Your task to perform on an android device: uninstall "eBay: The shopping marketplace" Image 0: 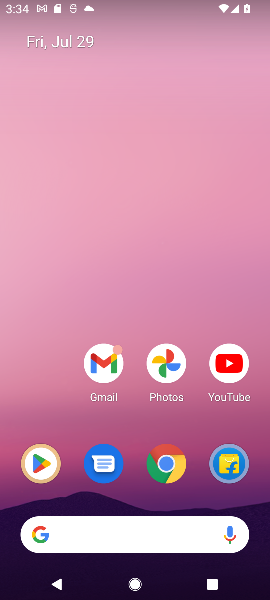
Step 0: drag from (93, 540) to (125, 202)
Your task to perform on an android device: uninstall "eBay: The shopping marketplace" Image 1: 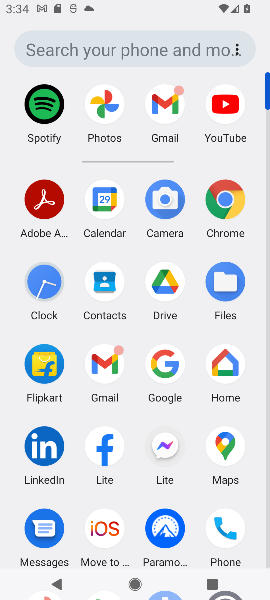
Step 1: drag from (133, 490) to (140, 348)
Your task to perform on an android device: uninstall "eBay: The shopping marketplace" Image 2: 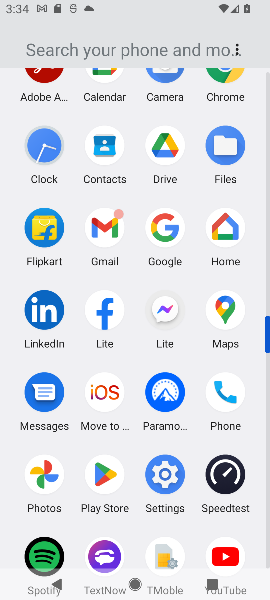
Step 2: click (110, 477)
Your task to perform on an android device: uninstall "eBay: The shopping marketplace" Image 3: 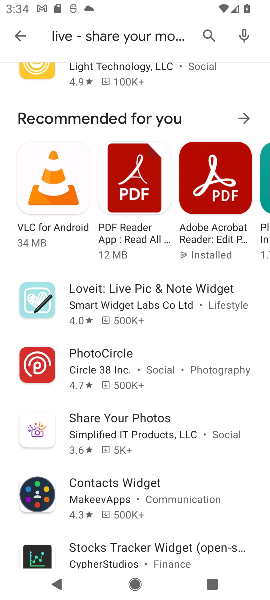
Step 3: click (208, 35)
Your task to perform on an android device: uninstall "eBay: The shopping marketplace" Image 4: 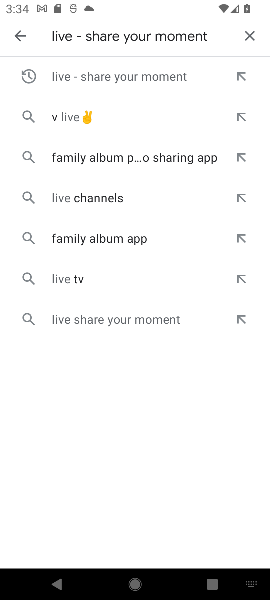
Step 4: click (249, 42)
Your task to perform on an android device: uninstall "eBay: The shopping marketplace" Image 5: 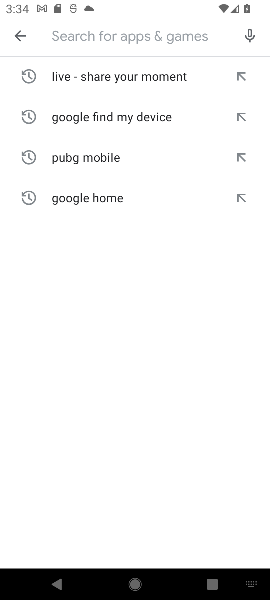
Step 5: click (103, 43)
Your task to perform on an android device: uninstall "eBay: The shopping marketplace" Image 6: 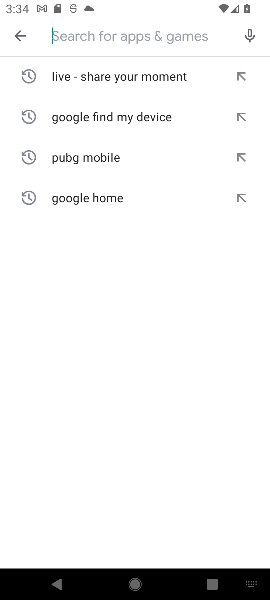
Step 6: type "eBay: The shopping marketplace"
Your task to perform on an android device: uninstall "eBay: The shopping marketplace" Image 7: 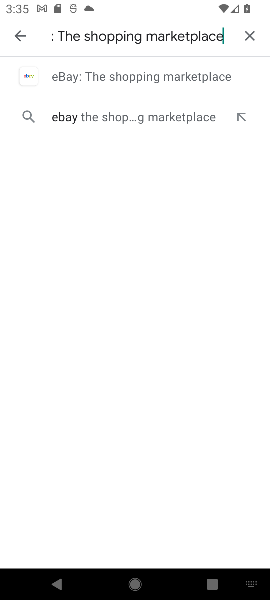
Step 7: click (105, 84)
Your task to perform on an android device: uninstall "eBay: The shopping marketplace" Image 8: 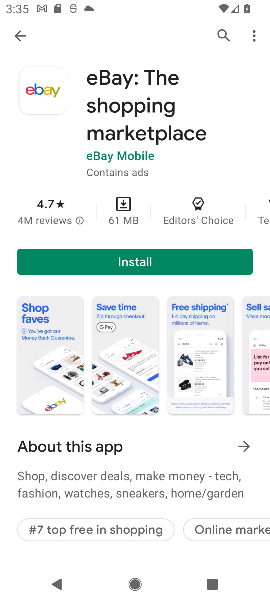
Step 8: task complete